Your task to perform on an android device: Open Maps and search for coffee Image 0: 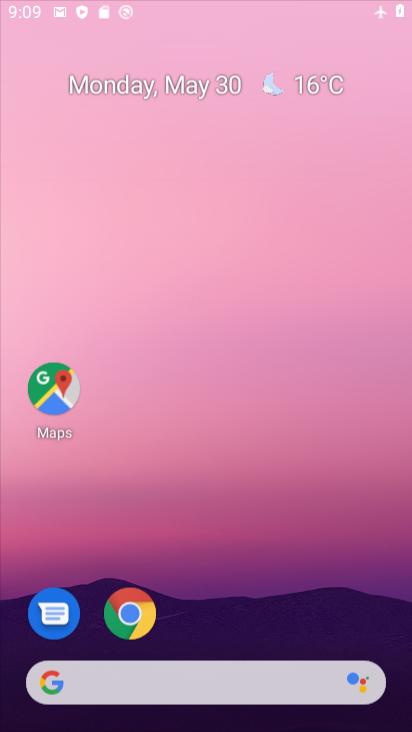
Step 0: click (292, 256)
Your task to perform on an android device: Open Maps and search for coffee Image 1: 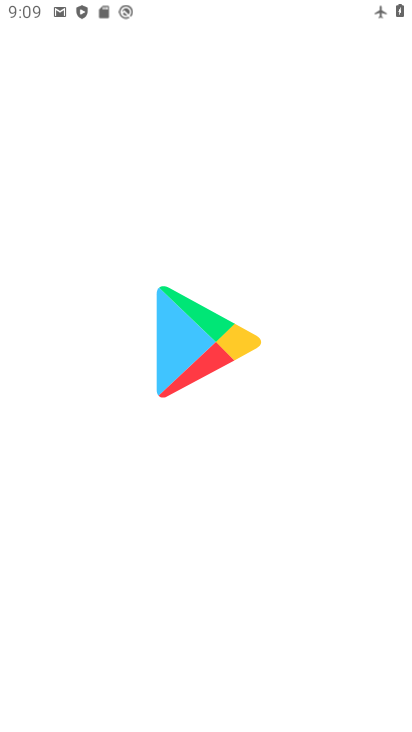
Step 1: drag from (228, 579) to (263, 214)
Your task to perform on an android device: Open Maps and search for coffee Image 2: 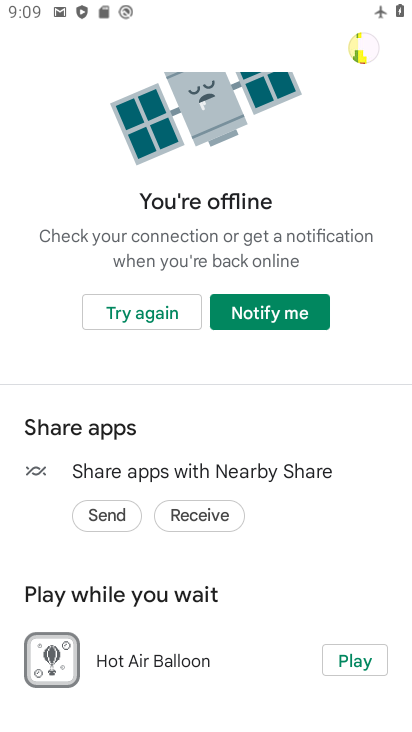
Step 2: press home button
Your task to perform on an android device: Open Maps and search for coffee Image 3: 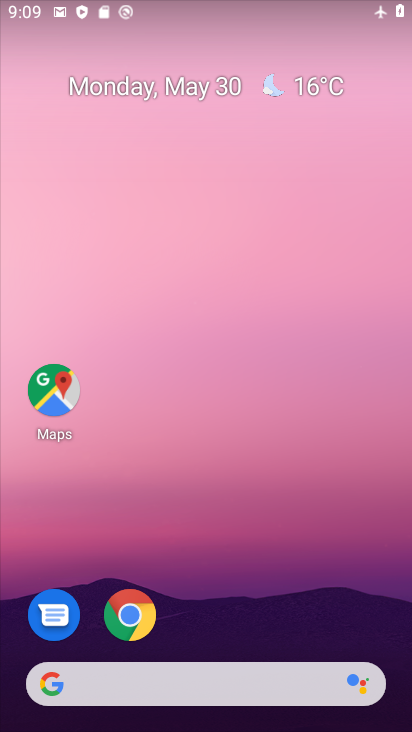
Step 3: drag from (235, 599) to (261, 681)
Your task to perform on an android device: Open Maps and search for coffee Image 4: 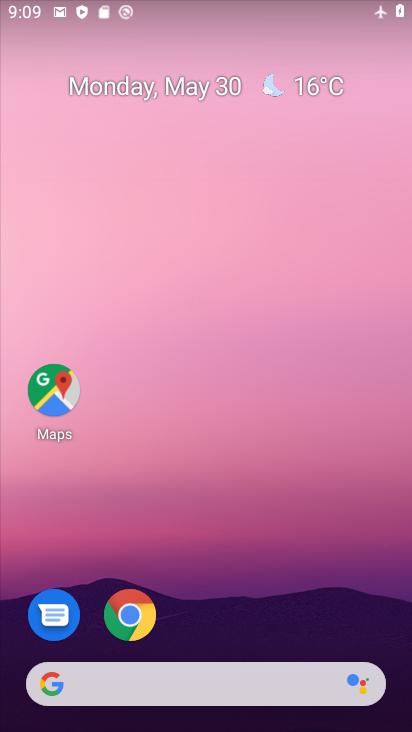
Step 4: click (55, 381)
Your task to perform on an android device: Open Maps and search for coffee Image 5: 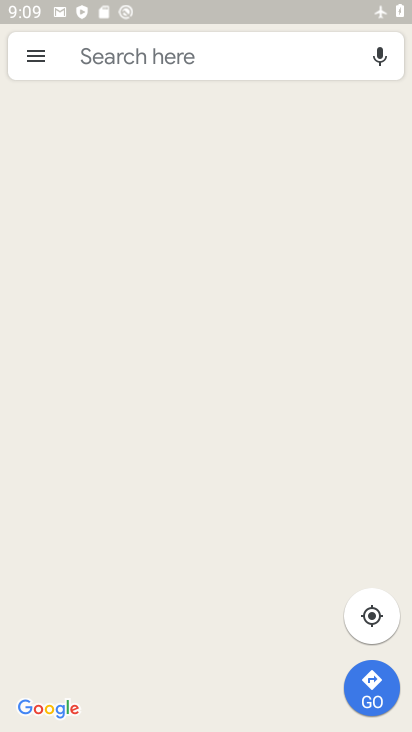
Step 5: click (107, 52)
Your task to perform on an android device: Open Maps and search for coffee Image 6: 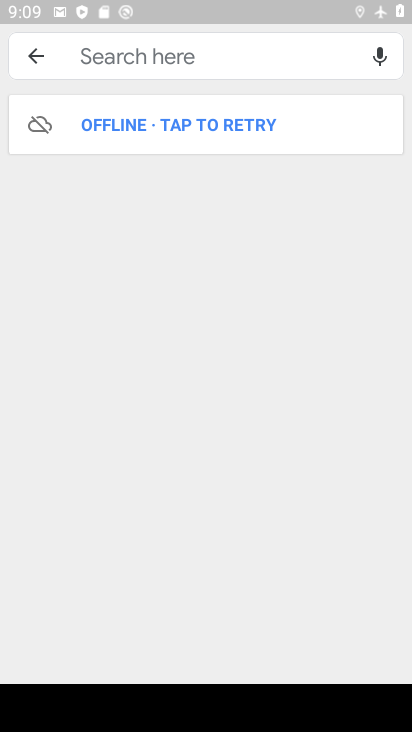
Step 6: type "coffe"
Your task to perform on an android device: Open Maps and search for coffee Image 7: 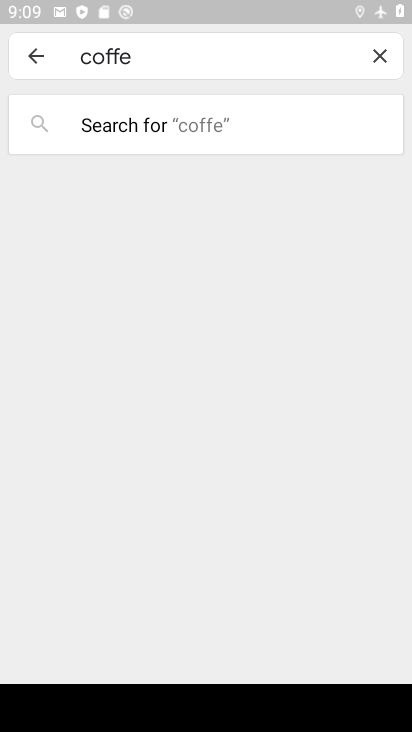
Step 7: drag from (348, 15) to (300, 421)
Your task to perform on an android device: Open Maps and search for coffee Image 8: 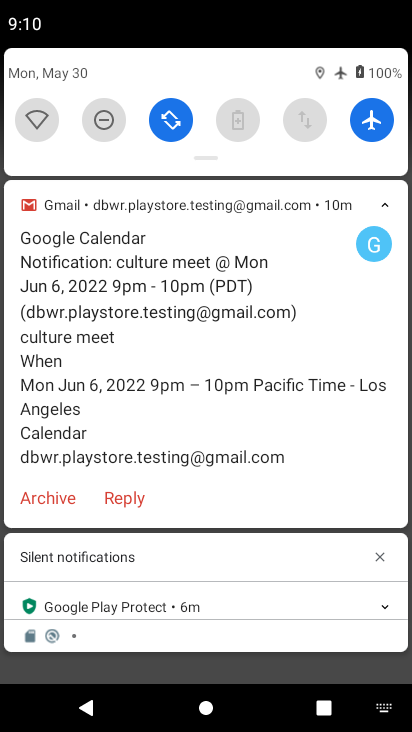
Step 8: click (370, 111)
Your task to perform on an android device: Open Maps and search for coffee Image 9: 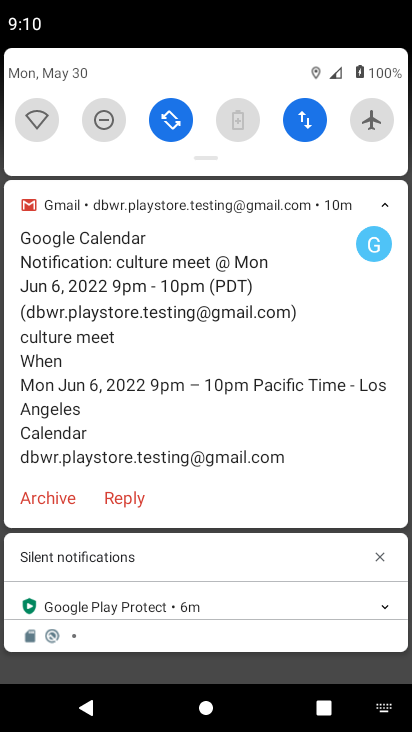
Step 9: drag from (186, 631) to (253, 154)
Your task to perform on an android device: Open Maps and search for coffee Image 10: 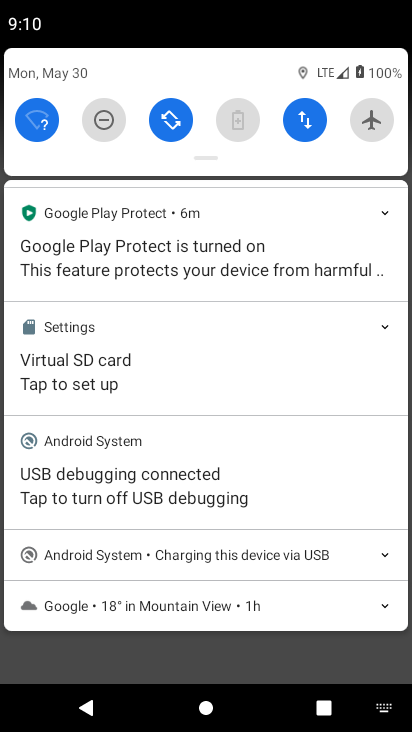
Step 10: drag from (212, 587) to (275, 120)
Your task to perform on an android device: Open Maps and search for coffee Image 11: 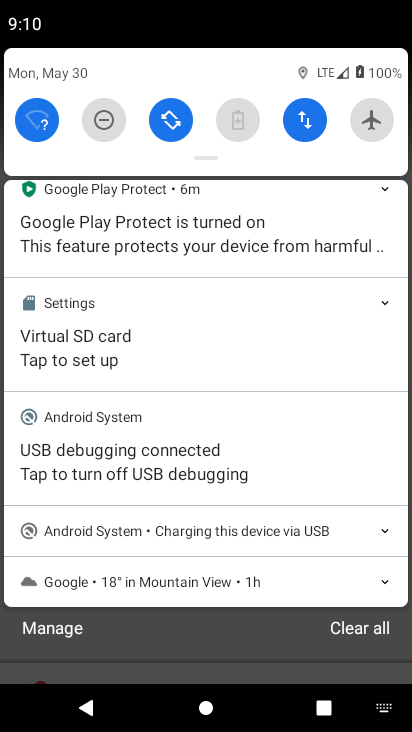
Step 11: drag from (147, 633) to (227, 17)
Your task to perform on an android device: Open Maps and search for coffee Image 12: 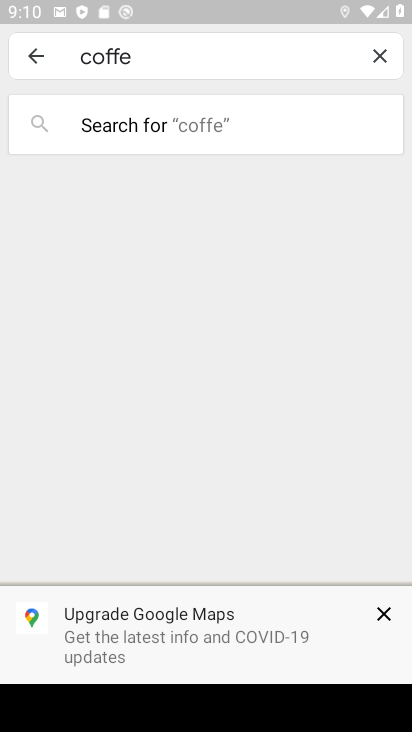
Step 12: click (164, 56)
Your task to perform on an android device: Open Maps and search for coffee Image 13: 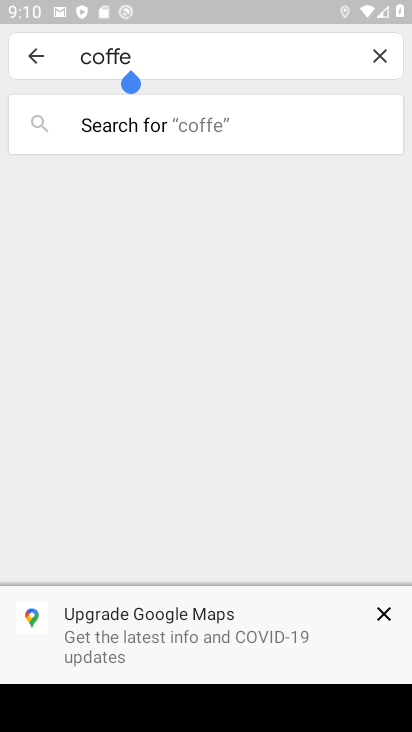
Step 13: click (372, 50)
Your task to perform on an android device: Open Maps and search for coffee Image 14: 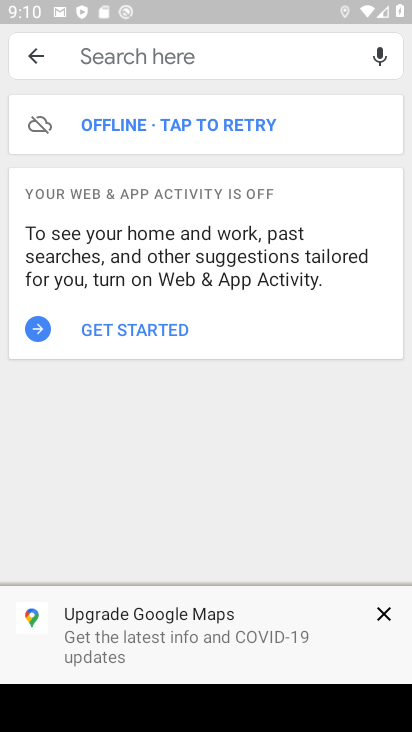
Step 14: click (149, 57)
Your task to perform on an android device: Open Maps and search for coffee Image 15: 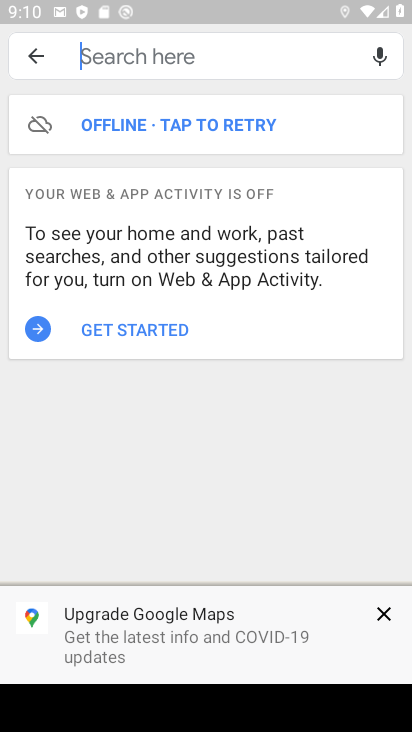
Step 15: click (161, 129)
Your task to perform on an android device: Open Maps and search for coffee Image 16: 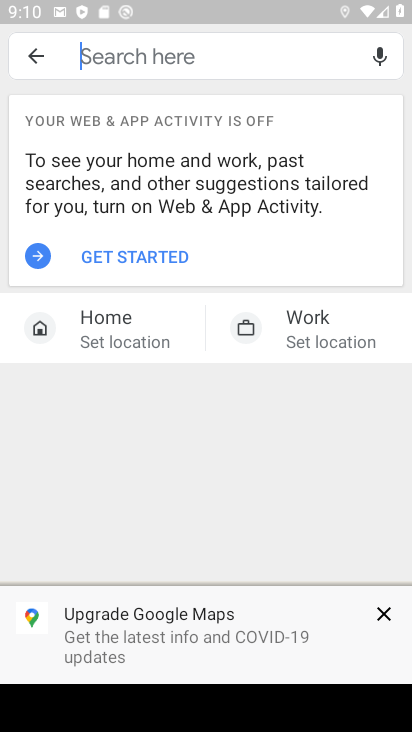
Step 16: click (111, 47)
Your task to perform on an android device: Open Maps and search for coffee Image 17: 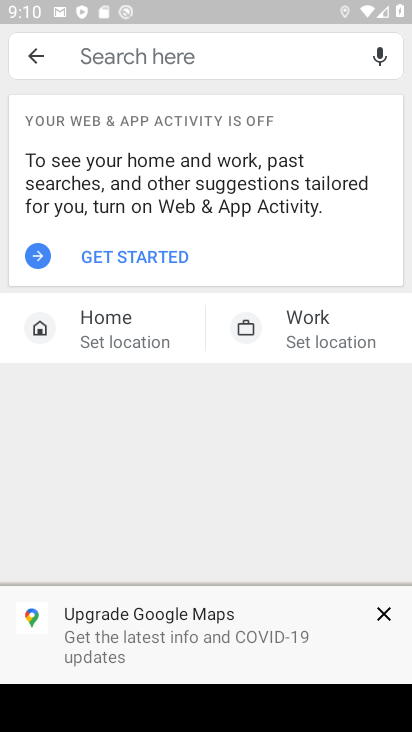
Step 17: type "coffee"
Your task to perform on an android device: Open Maps and search for coffee Image 18: 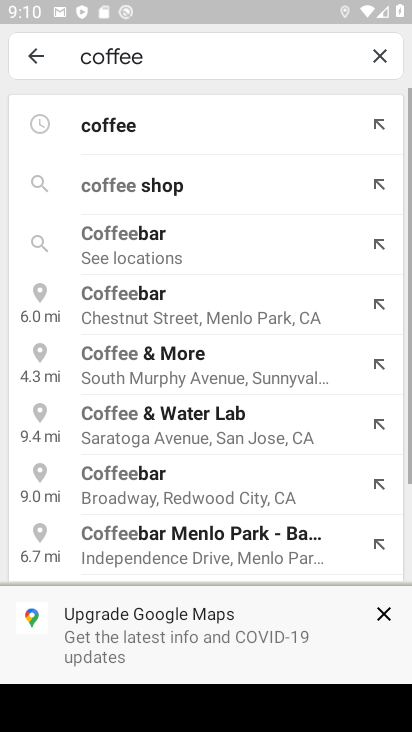
Step 18: click (183, 127)
Your task to perform on an android device: Open Maps and search for coffee Image 19: 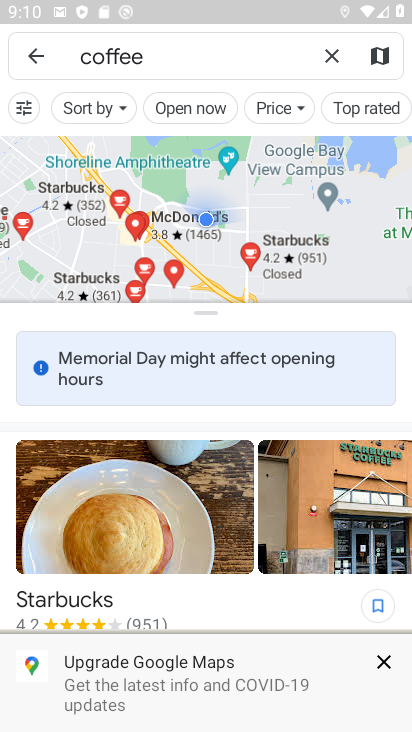
Step 19: task complete